Your task to perform on an android device: What is the news today? Image 0: 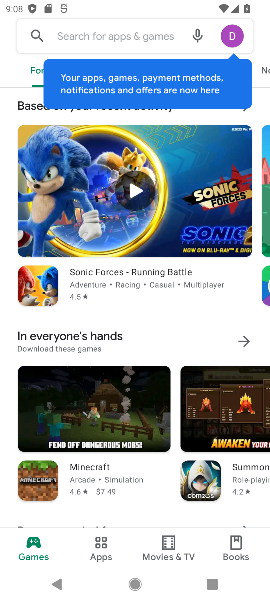
Step 0: press home button
Your task to perform on an android device: What is the news today? Image 1: 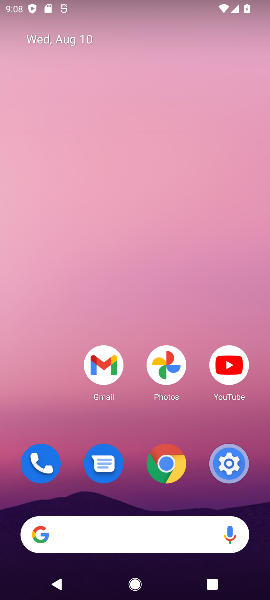
Step 1: click (52, 529)
Your task to perform on an android device: What is the news today? Image 2: 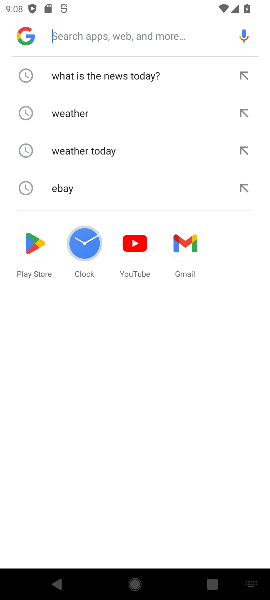
Step 2: click (131, 69)
Your task to perform on an android device: What is the news today? Image 3: 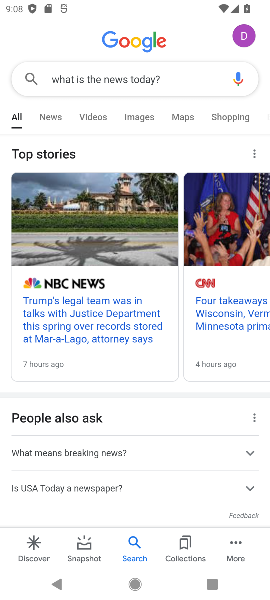
Step 3: task complete